Your task to perform on an android device: Go to network settings Image 0: 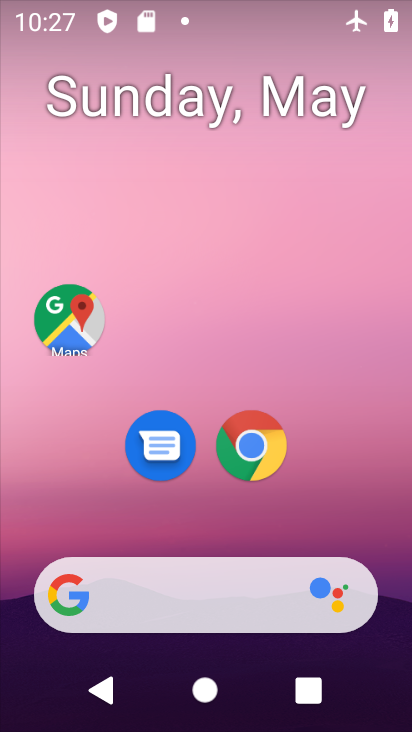
Step 0: drag from (222, 410) to (261, 224)
Your task to perform on an android device: Go to network settings Image 1: 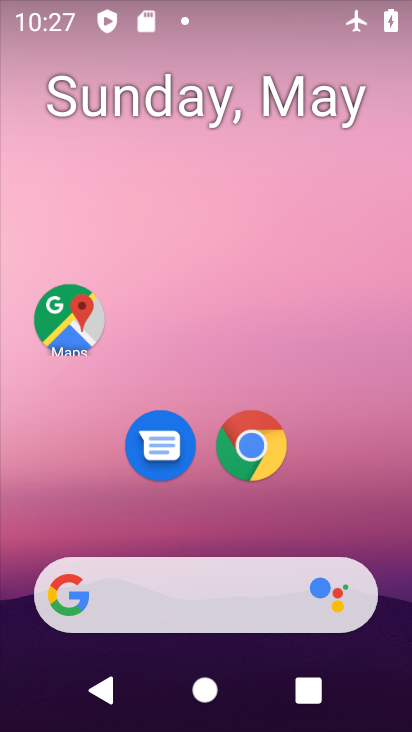
Step 1: drag from (223, 563) to (257, 159)
Your task to perform on an android device: Go to network settings Image 2: 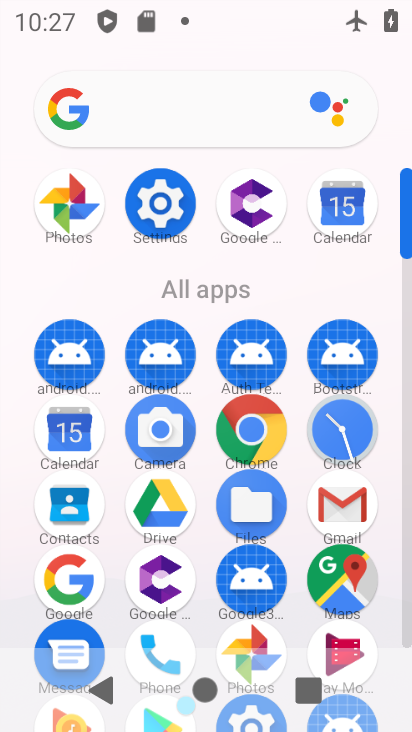
Step 2: click (161, 199)
Your task to perform on an android device: Go to network settings Image 3: 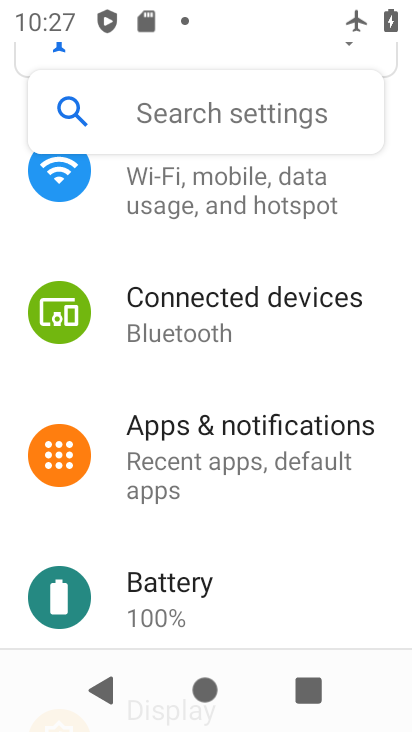
Step 3: drag from (212, 261) to (204, 522)
Your task to perform on an android device: Go to network settings Image 4: 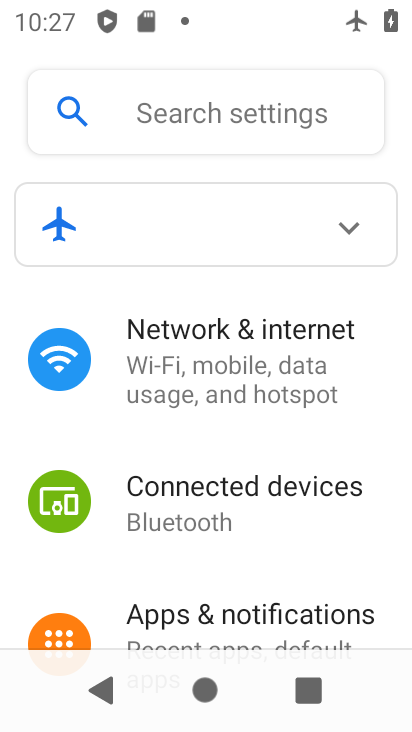
Step 4: click (233, 371)
Your task to perform on an android device: Go to network settings Image 5: 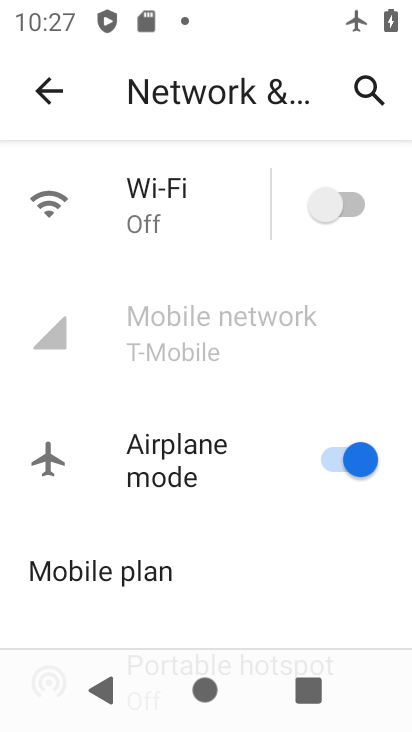
Step 5: task complete